Your task to perform on an android device: Open Google Image 0: 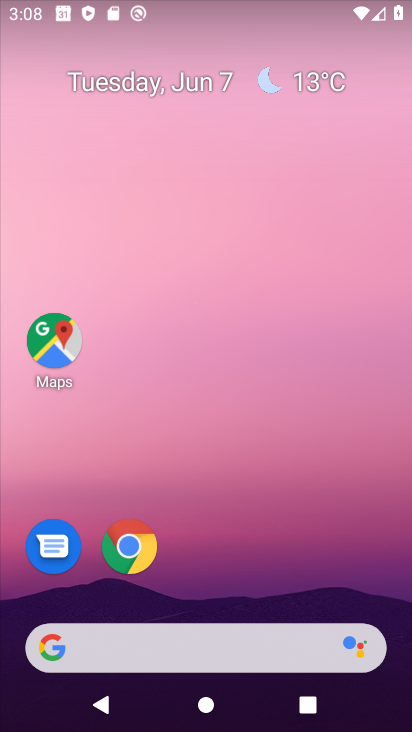
Step 0: click (140, 642)
Your task to perform on an android device: Open Google Image 1: 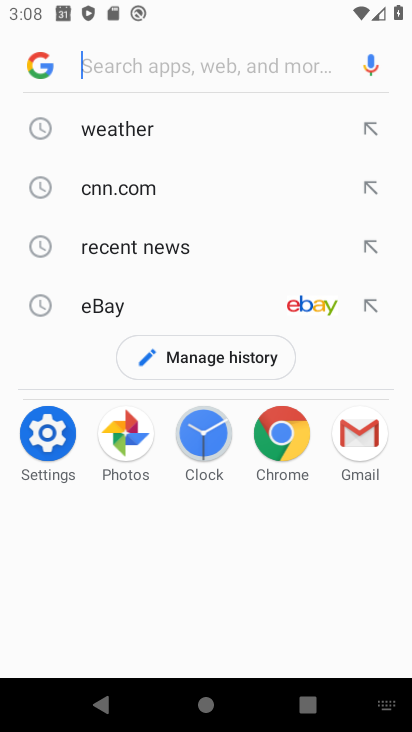
Step 1: task complete